Your task to perform on an android device: check the backup settings in the google photos Image 0: 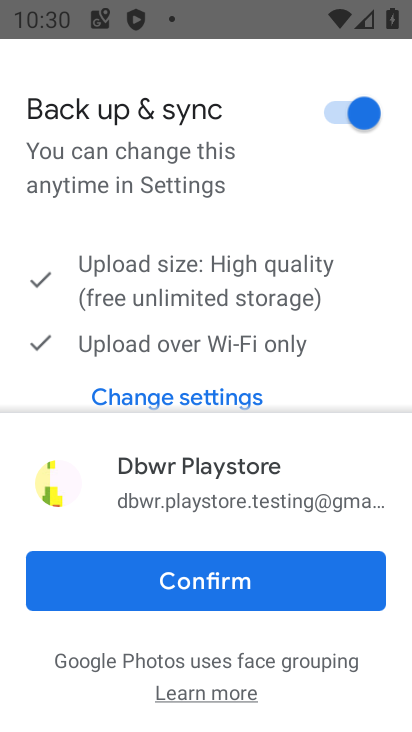
Step 0: click (208, 587)
Your task to perform on an android device: check the backup settings in the google photos Image 1: 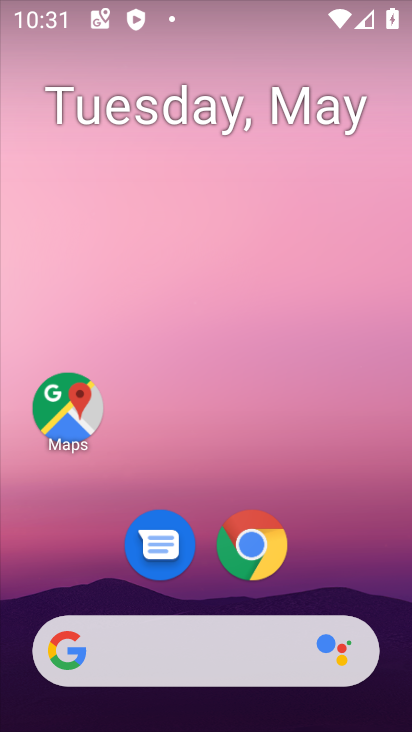
Step 1: drag from (223, 654) to (230, 195)
Your task to perform on an android device: check the backup settings in the google photos Image 2: 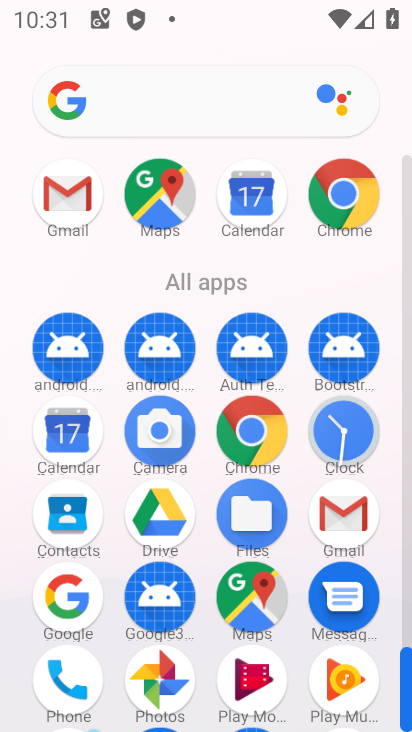
Step 2: drag from (274, 542) to (274, 389)
Your task to perform on an android device: check the backup settings in the google photos Image 3: 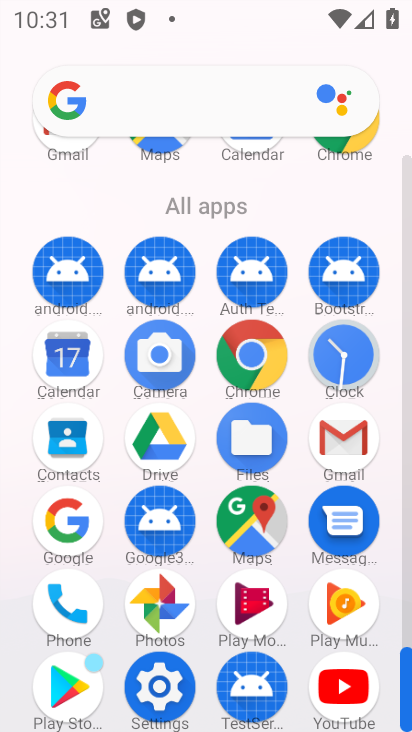
Step 3: click (151, 603)
Your task to perform on an android device: check the backup settings in the google photos Image 4: 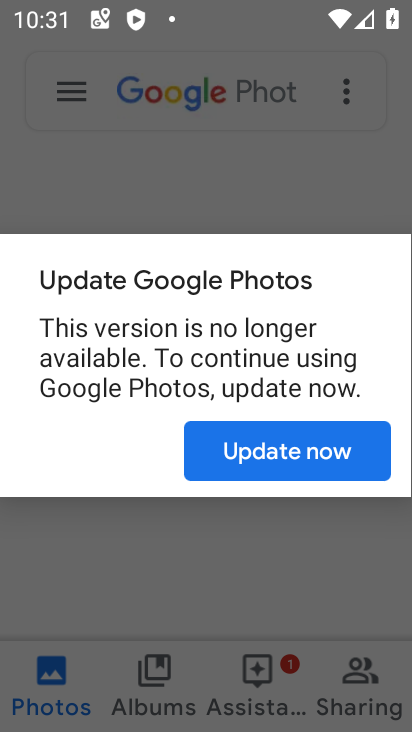
Step 4: click (254, 454)
Your task to perform on an android device: check the backup settings in the google photos Image 5: 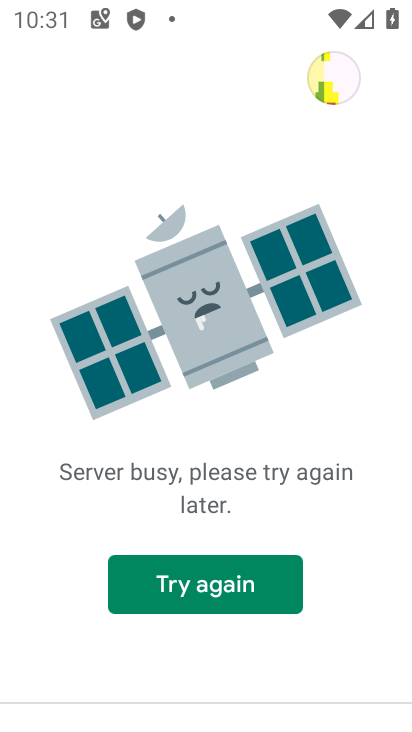
Step 5: task complete